Your task to perform on an android device: Go to Wikipedia Image 0: 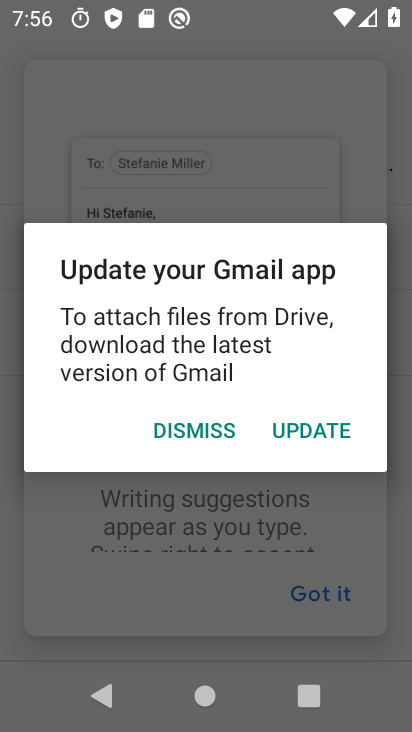
Step 0: press home button
Your task to perform on an android device: Go to Wikipedia Image 1: 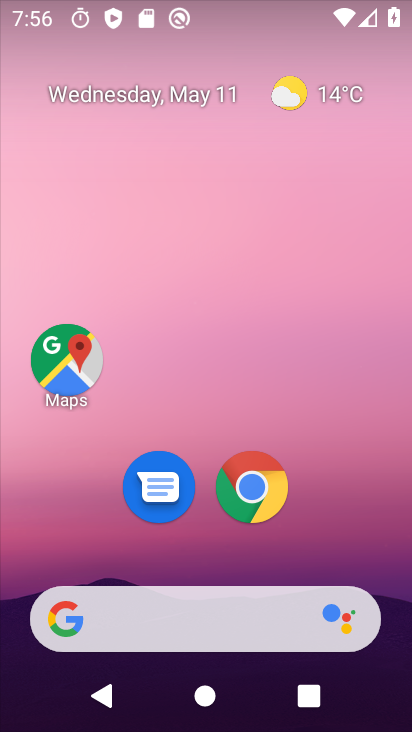
Step 1: click (240, 495)
Your task to perform on an android device: Go to Wikipedia Image 2: 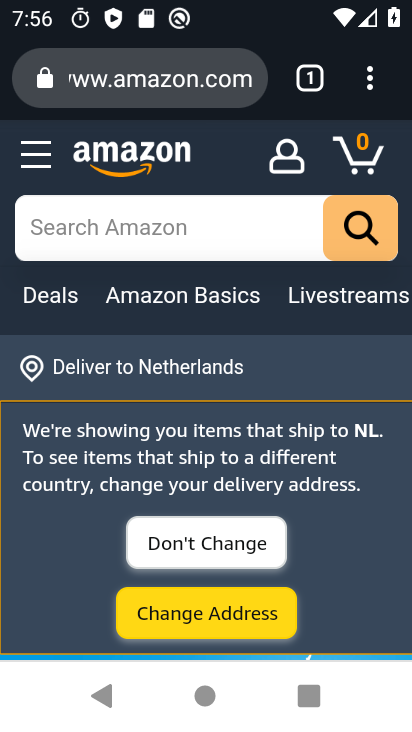
Step 2: click (368, 93)
Your task to perform on an android device: Go to Wikipedia Image 3: 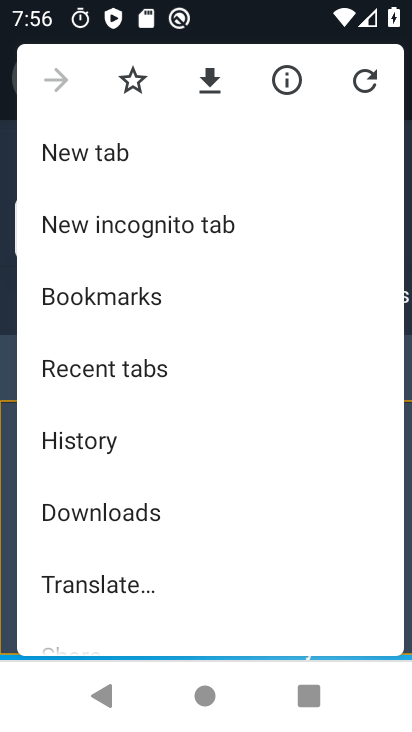
Step 3: click (94, 146)
Your task to perform on an android device: Go to Wikipedia Image 4: 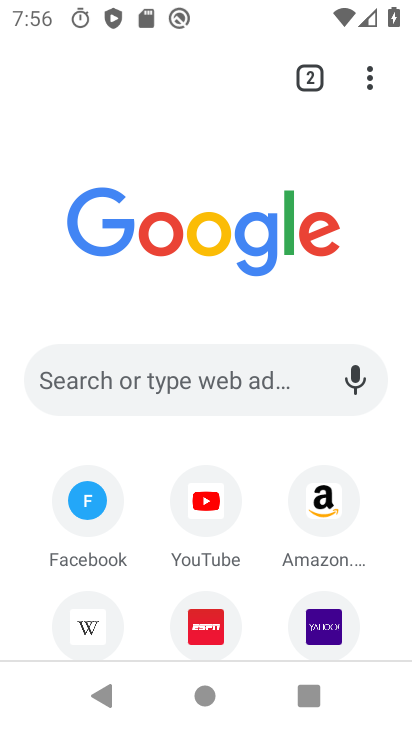
Step 4: click (199, 376)
Your task to perform on an android device: Go to Wikipedia Image 5: 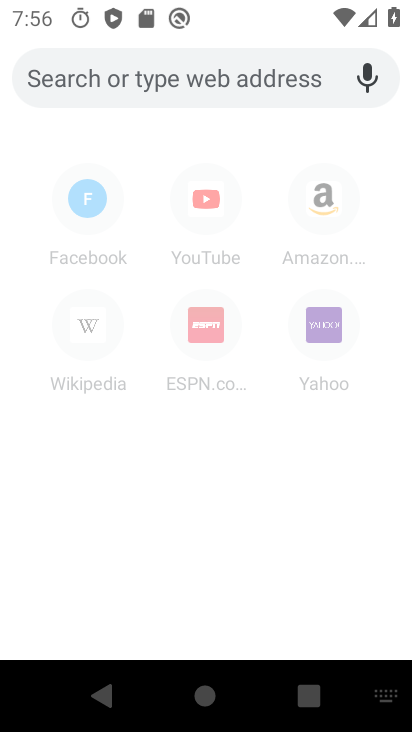
Step 5: type "Wikipedis"
Your task to perform on an android device: Go to Wikipedia Image 6: 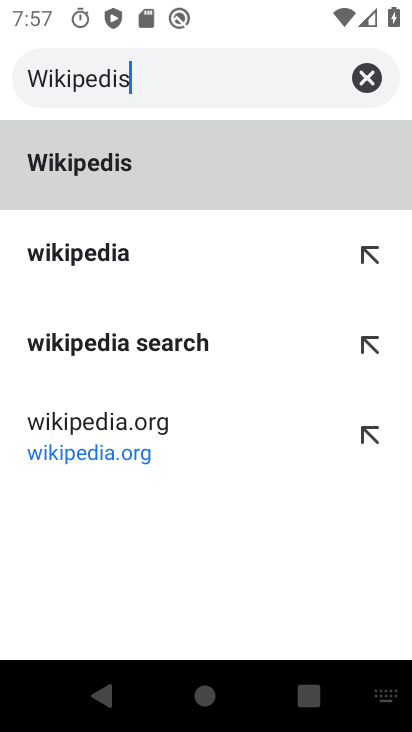
Step 6: click (68, 246)
Your task to perform on an android device: Go to Wikipedia Image 7: 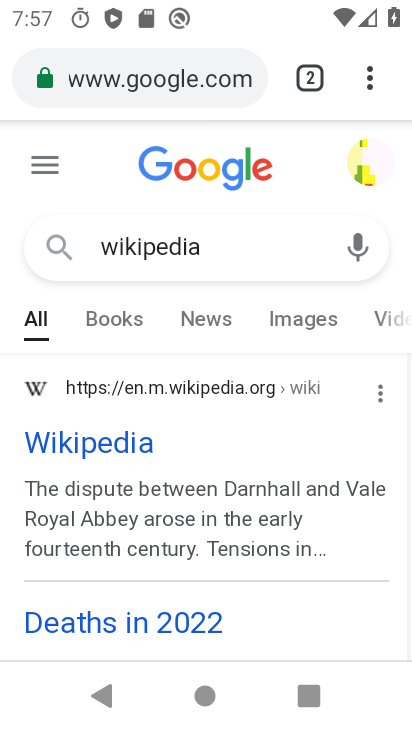
Step 7: click (57, 444)
Your task to perform on an android device: Go to Wikipedia Image 8: 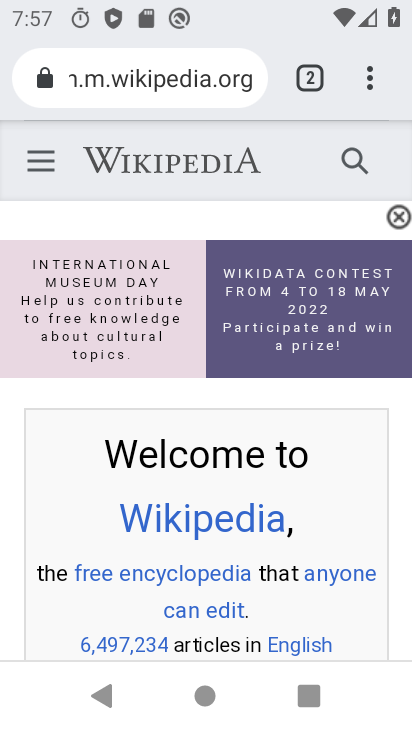
Step 8: task complete